Your task to perform on an android device: turn on airplane mode Image 0: 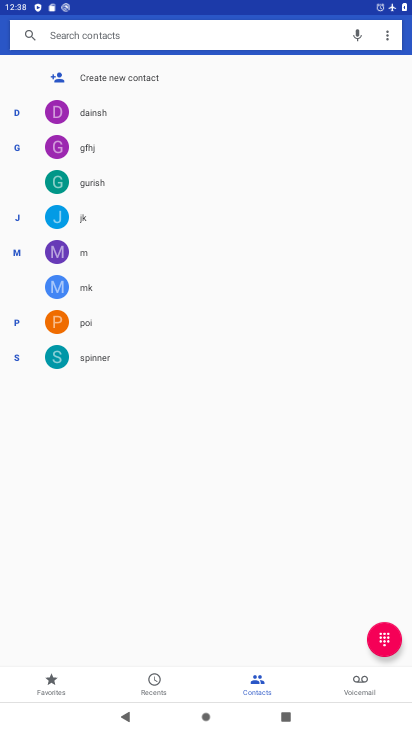
Step 0: press home button
Your task to perform on an android device: turn on airplane mode Image 1: 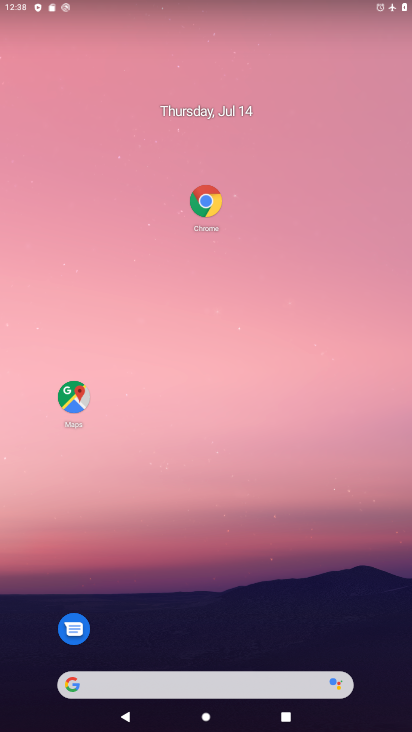
Step 1: drag from (223, 624) to (124, 81)
Your task to perform on an android device: turn on airplane mode Image 2: 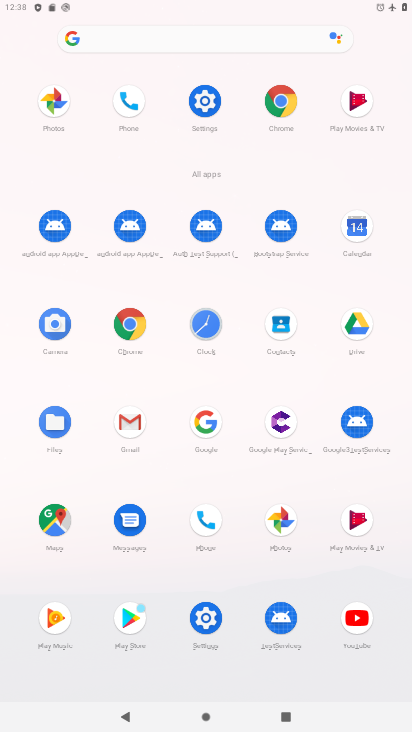
Step 2: click (203, 104)
Your task to perform on an android device: turn on airplane mode Image 3: 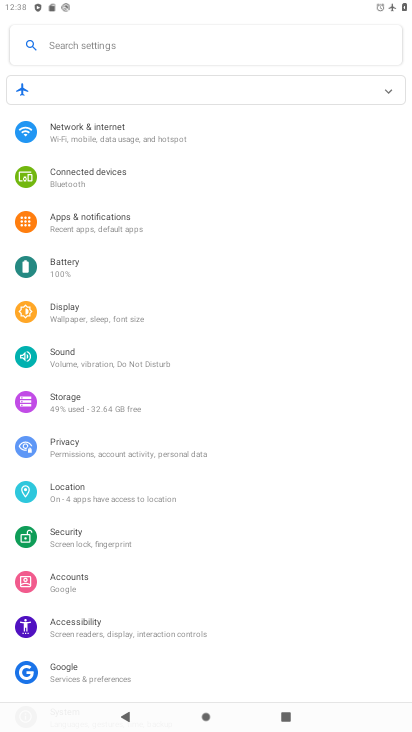
Step 3: click (122, 133)
Your task to perform on an android device: turn on airplane mode Image 4: 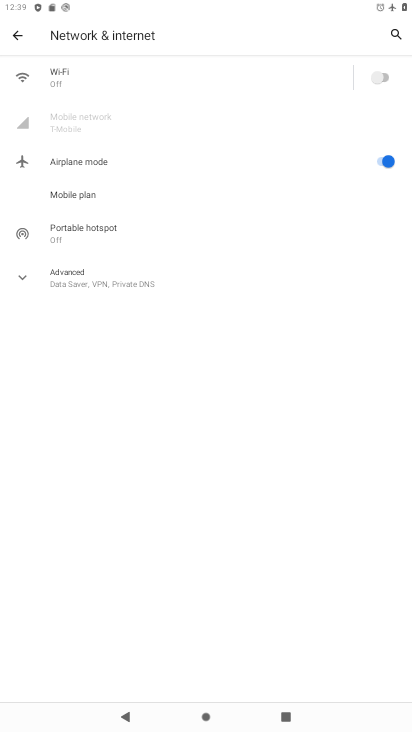
Step 4: click (377, 156)
Your task to perform on an android device: turn on airplane mode Image 5: 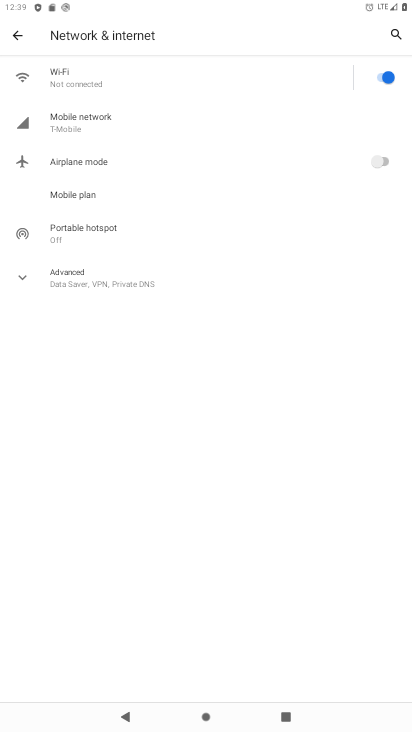
Step 5: task complete